Your task to perform on an android device: Check the weather Image 0: 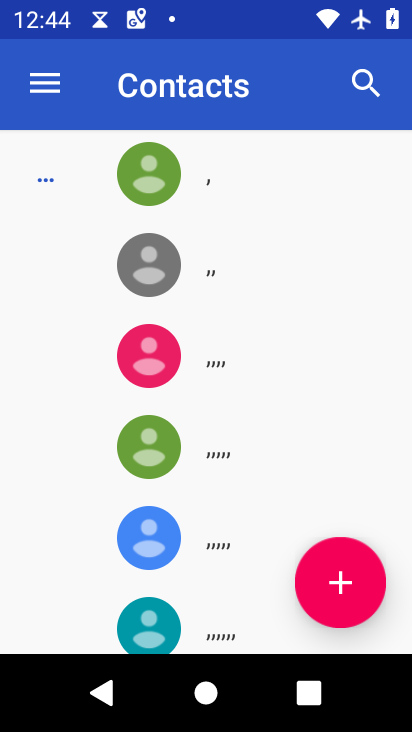
Step 0: press home button
Your task to perform on an android device: Check the weather Image 1: 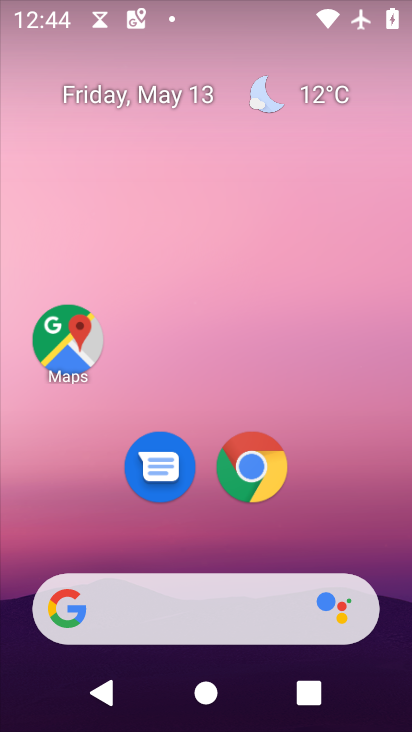
Step 1: click (323, 84)
Your task to perform on an android device: Check the weather Image 2: 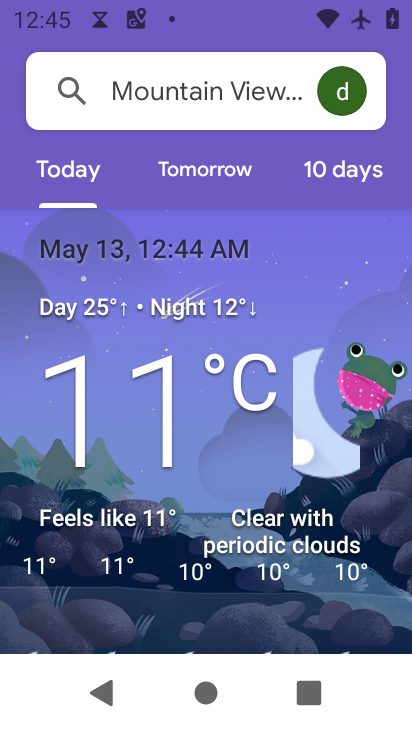
Step 2: task complete